Your task to perform on an android device: change the clock display to analog Image 0: 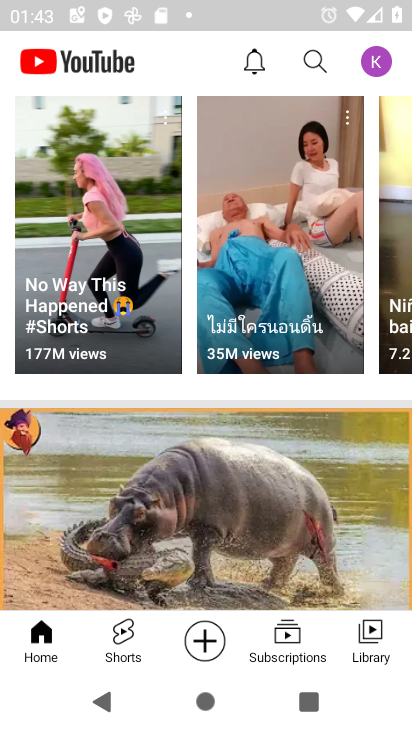
Step 0: press home button
Your task to perform on an android device: change the clock display to analog Image 1: 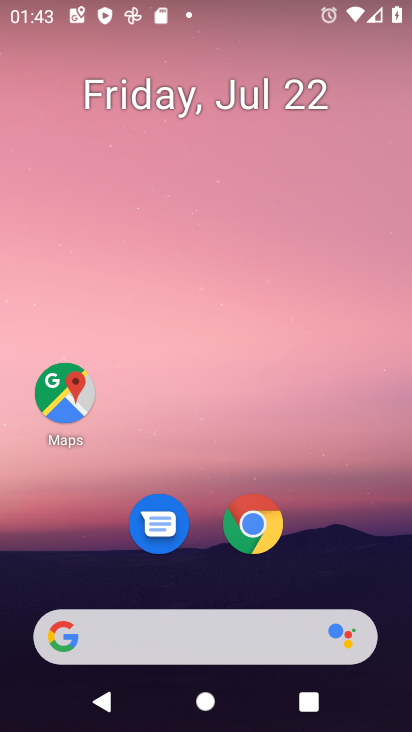
Step 1: drag from (182, 636) to (316, 74)
Your task to perform on an android device: change the clock display to analog Image 2: 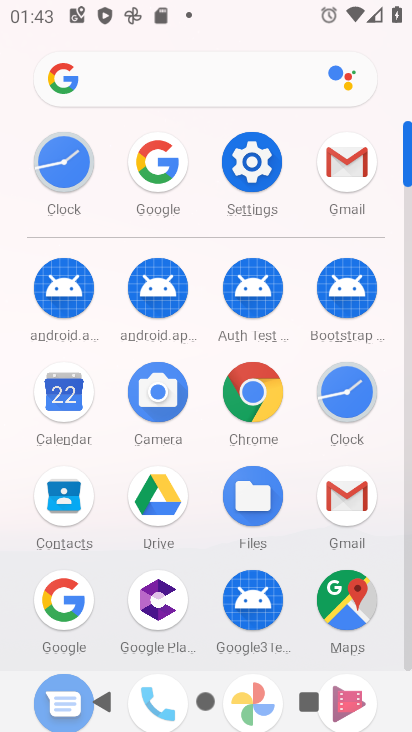
Step 2: click (56, 165)
Your task to perform on an android device: change the clock display to analog Image 3: 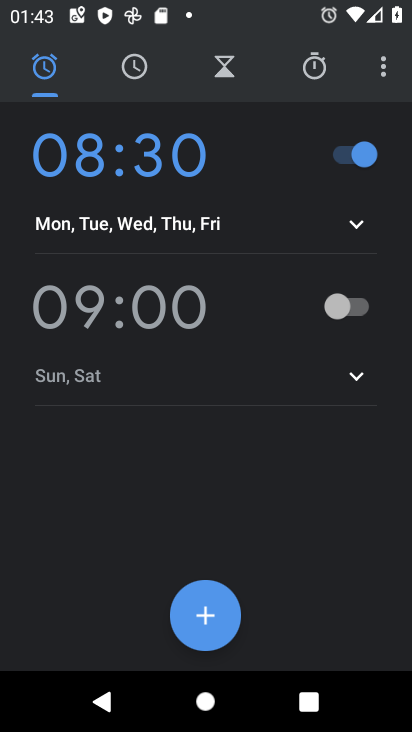
Step 3: click (382, 65)
Your task to perform on an android device: change the clock display to analog Image 4: 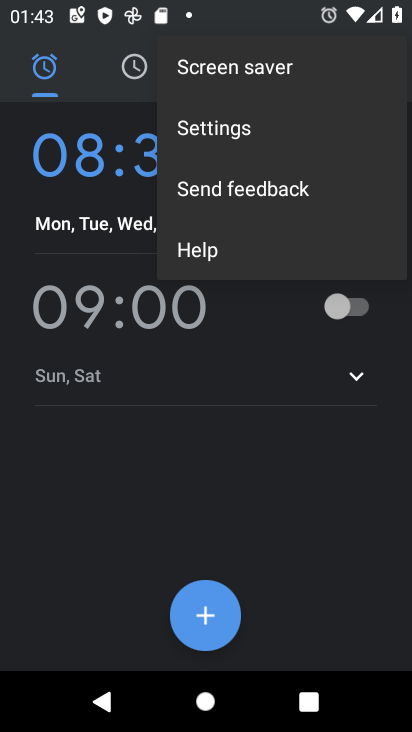
Step 4: click (227, 125)
Your task to perform on an android device: change the clock display to analog Image 5: 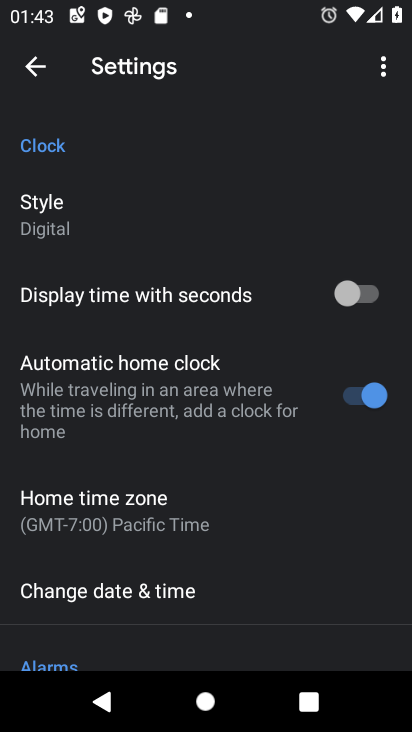
Step 5: click (58, 222)
Your task to perform on an android device: change the clock display to analog Image 6: 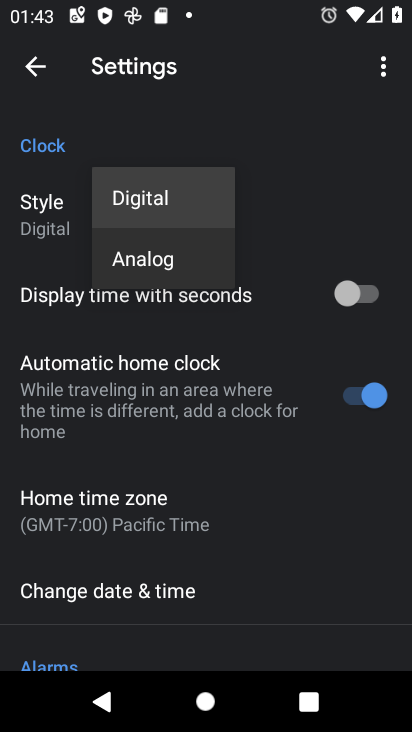
Step 6: click (145, 261)
Your task to perform on an android device: change the clock display to analog Image 7: 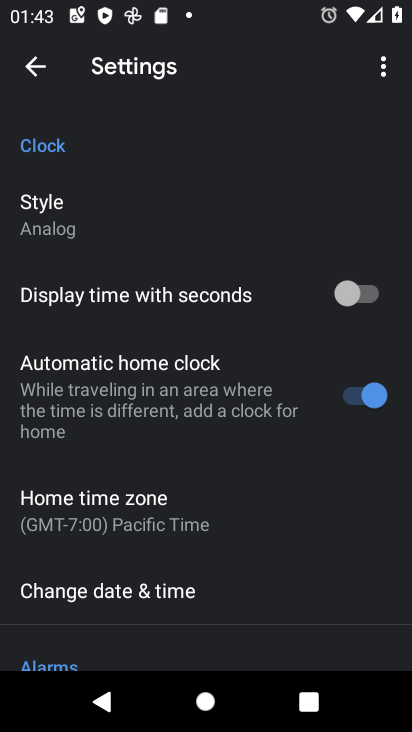
Step 7: task complete